Your task to perform on an android device: Open location settings Image 0: 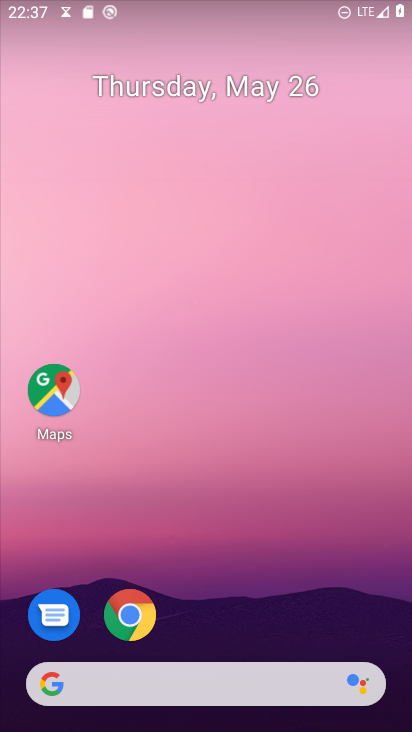
Step 0: drag from (267, 614) to (252, 269)
Your task to perform on an android device: Open location settings Image 1: 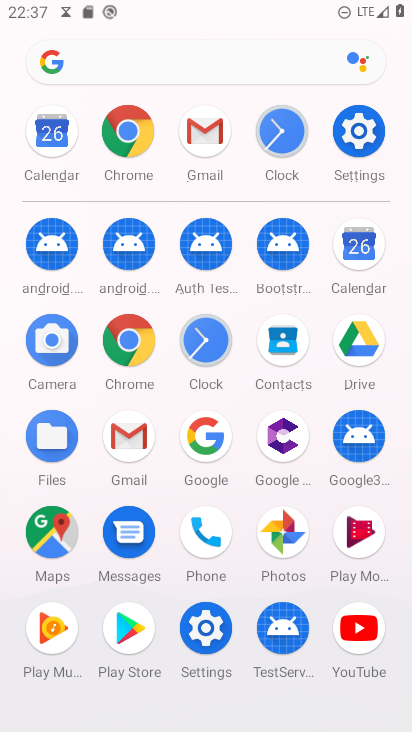
Step 1: click (362, 120)
Your task to perform on an android device: Open location settings Image 2: 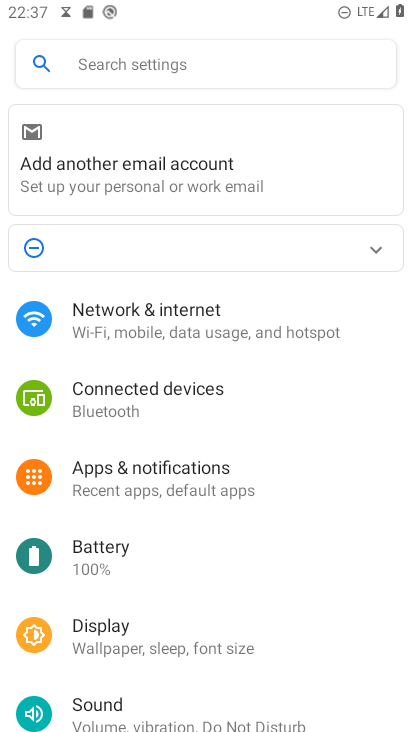
Step 2: drag from (166, 629) to (139, 331)
Your task to perform on an android device: Open location settings Image 3: 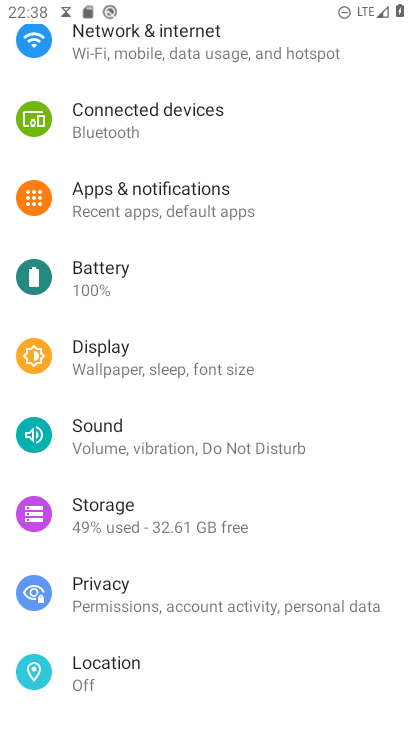
Step 3: drag from (130, 615) to (174, 337)
Your task to perform on an android device: Open location settings Image 4: 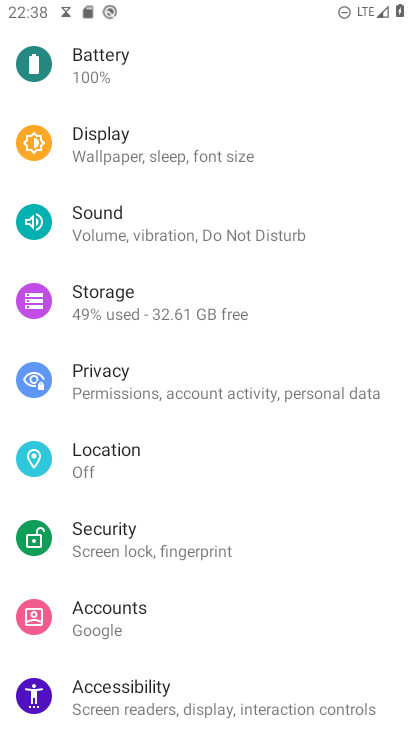
Step 4: click (98, 457)
Your task to perform on an android device: Open location settings Image 5: 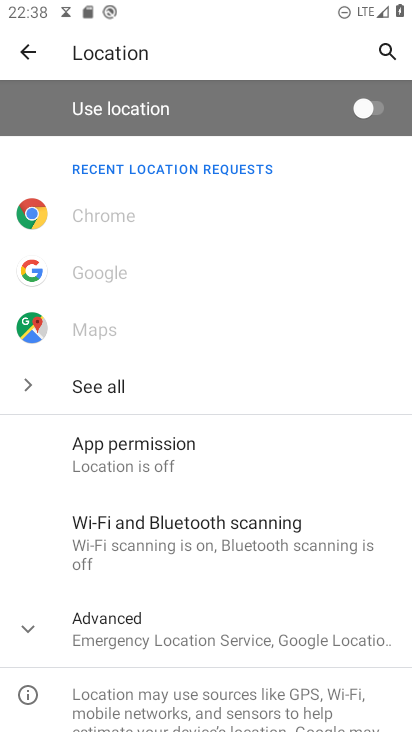
Step 5: task complete